Your task to perform on an android device: What's the weather going to be tomorrow? Image 0: 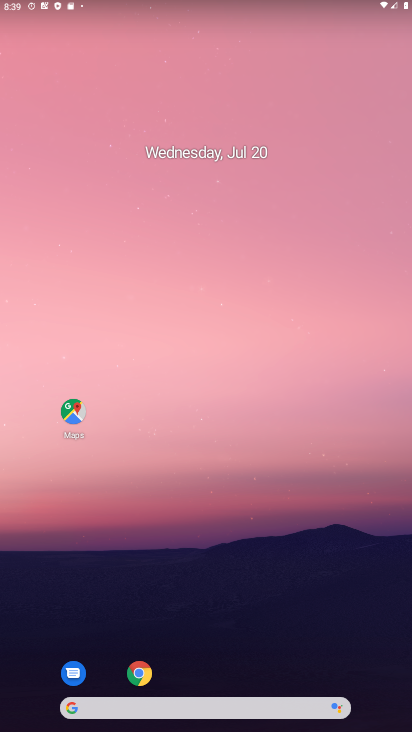
Step 0: click (177, 117)
Your task to perform on an android device: What's the weather going to be tomorrow? Image 1: 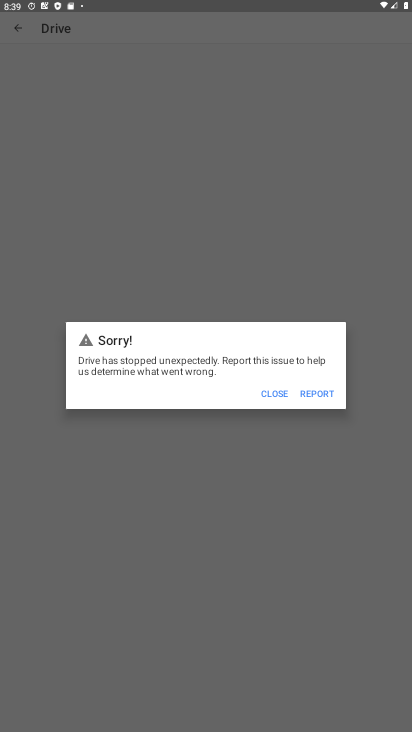
Step 1: press home button
Your task to perform on an android device: What's the weather going to be tomorrow? Image 2: 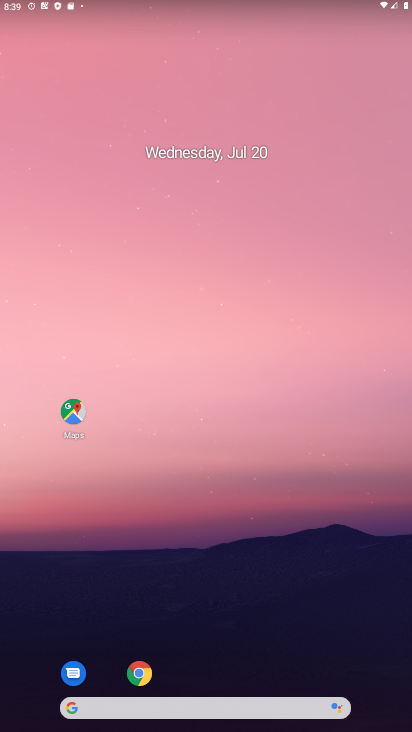
Step 2: drag from (384, 704) to (181, 28)
Your task to perform on an android device: What's the weather going to be tomorrow? Image 3: 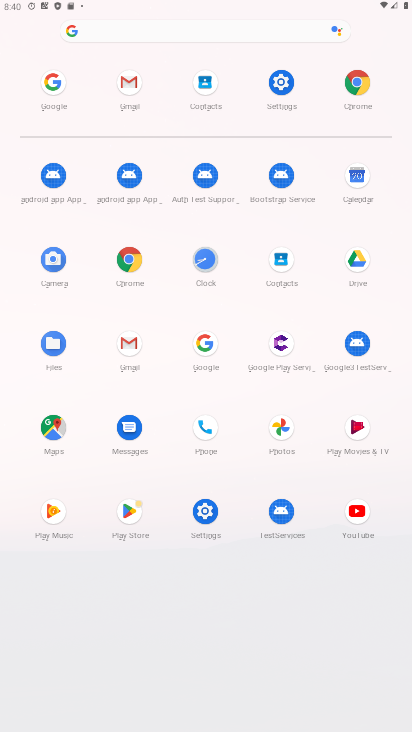
Step 3: click (212, 337)
Your task to perform on an android device: What's the weather going to be tomorrow? Image 4: 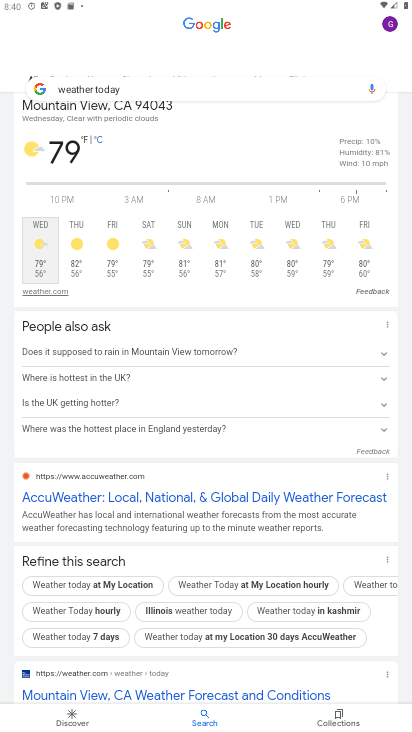
Step 4: press back button
Your task to perform on an android device: What's the weather going to be tomorrow? Image 5: 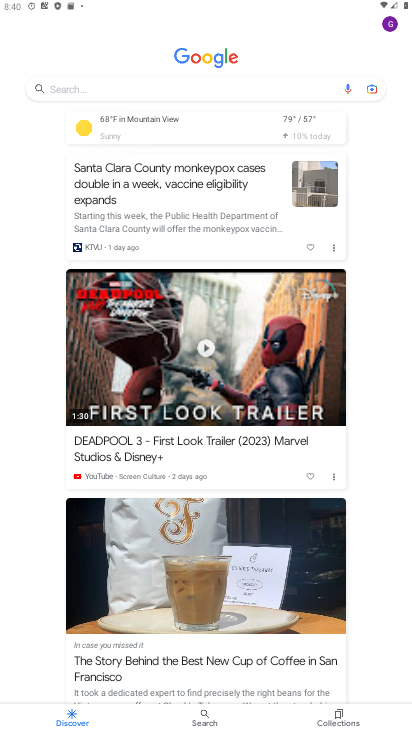
Step 5: click (90, 86)
Your task to perform on an android device: What's the weather going to be tomorrow? Image 6: 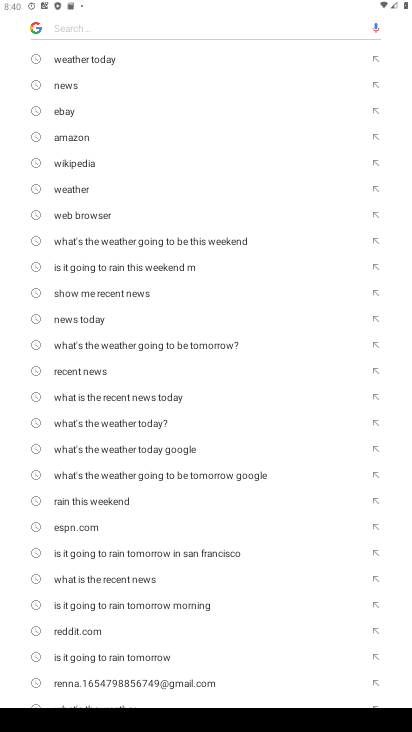
Step 6: click (170, 352)
Your task to perform on an android device: What's the weather going to be tomorrow? Image 7: 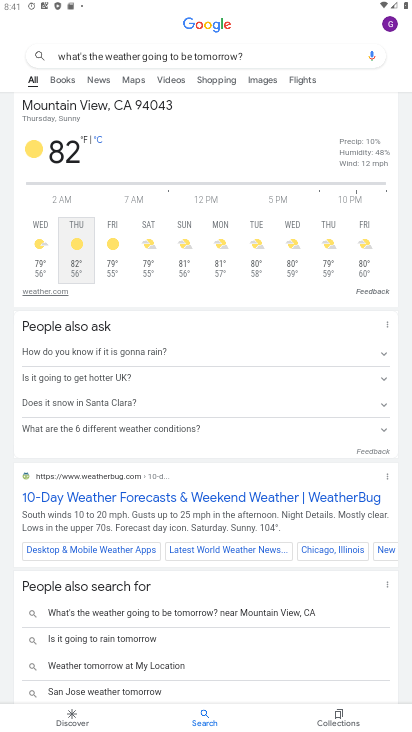
Step 7: task complete